Your task to perform on an android device: add a contact Image 0: 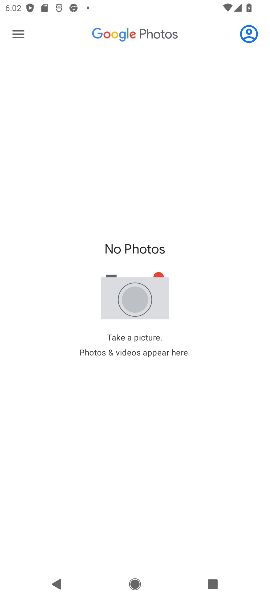
Step 0: press home button
Your task to perform on an android device: add a contact Image 1: 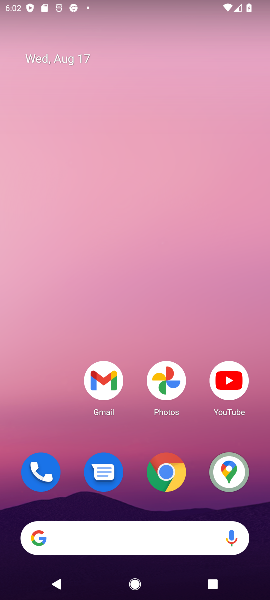
Step 1: drag from (129, 438) to (135, 28)
Your task to perform on an android device: add a contact Image 2: 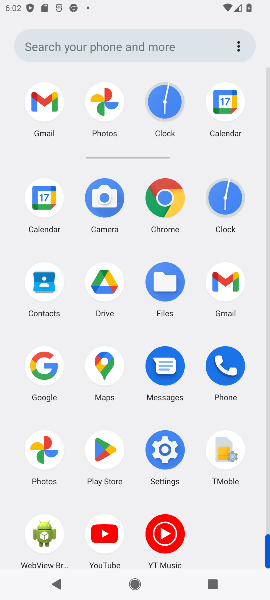
Step 2: click (47, 299)
Your task to perform on an android device: add a contact Image 3: 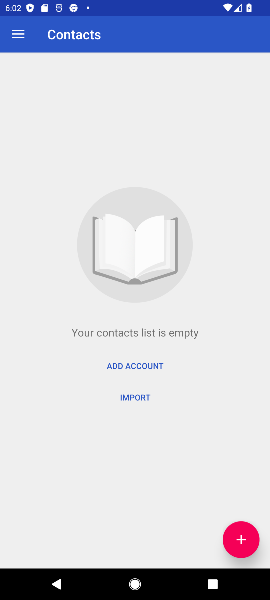
Step 3: click (239, 546)
Your task to perform on an android device: add a contact Image 4: 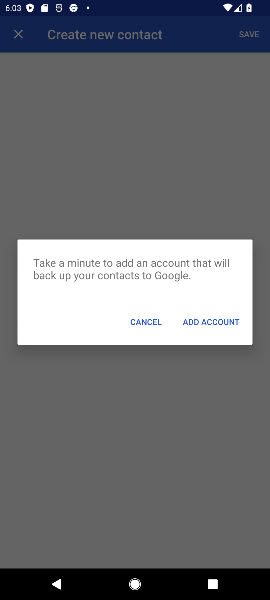
Step 4: click (155, 318)
Your task to perform on an android device: add a contact Image 5: 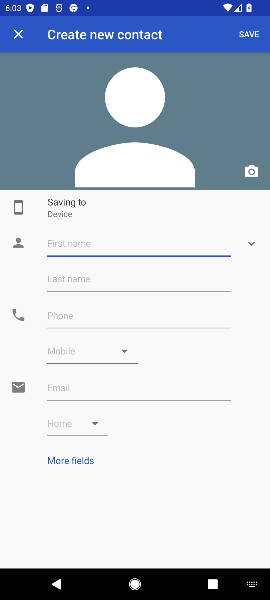
Step 5: type "fdhgfhtf"
Your task to perform on an android device: add a contact Image 6: 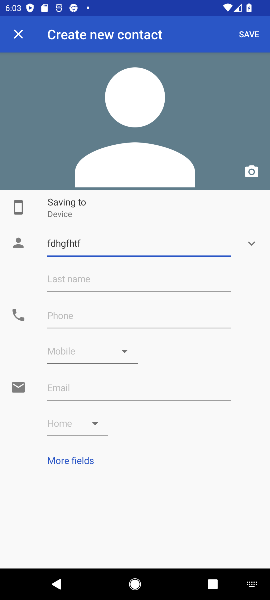
Step 6: click (104, 311)
Your task to perform on an android device: add a contact Image 7: 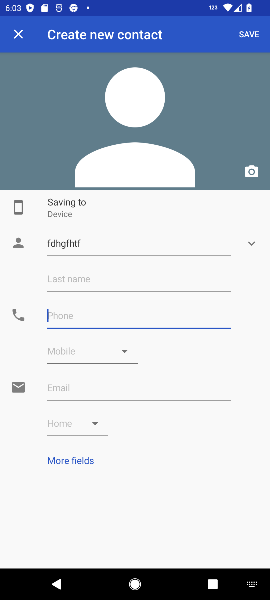
Step 7: type "8657546456"
Your task to perform on an android device: add a contact Image 8: 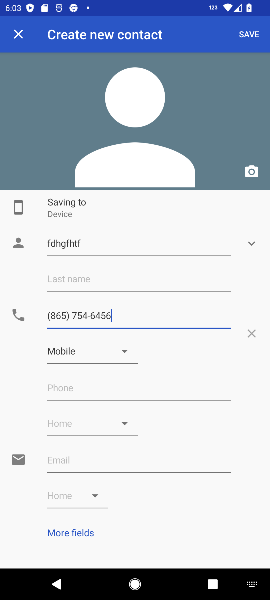
Step 8: click (245, 29)
Your task to perform on an android device: add a contact Image 9: 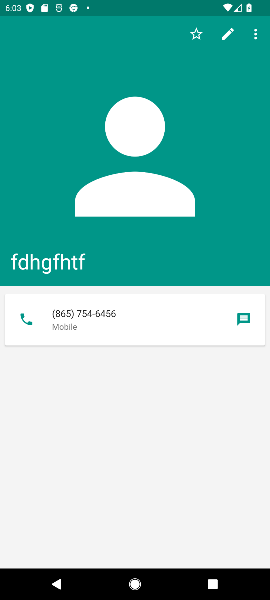
Step 9: task complete